Your task to perform on an android device: empty trash in google photos Image 0: 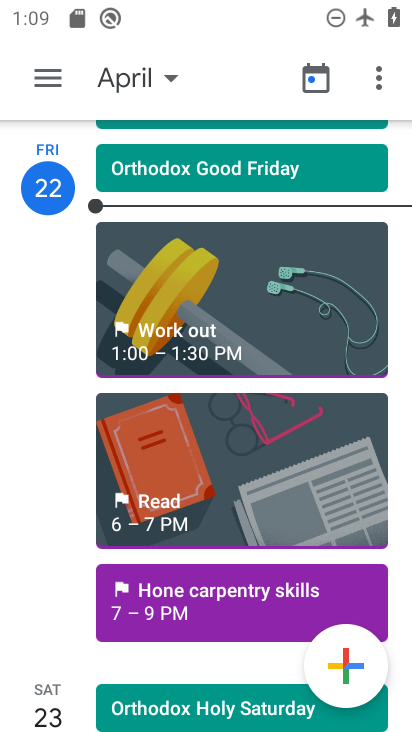
Step 0: press home button
Your task to perform on an android device: empty trash in google photos Image 1: 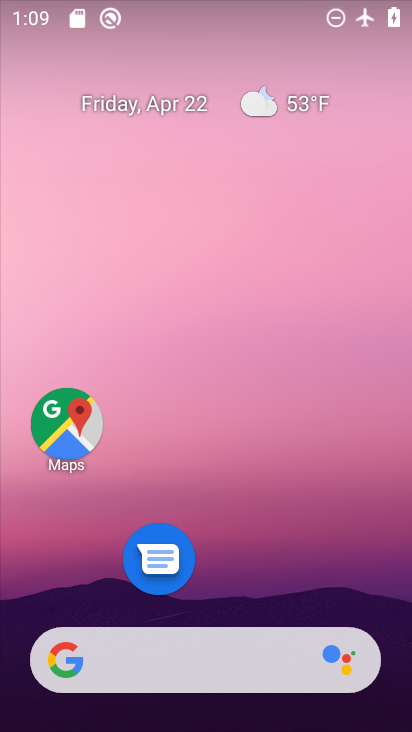
Step 1: drag from (225, 710) to (203, 88)
Your task to perform on an android device: empty trash in google photos Image 2: 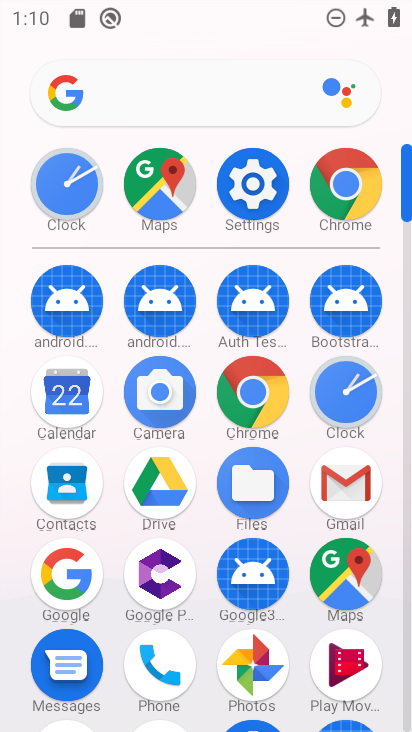
Step 2: click (252, 657)
Your task to perform on an android device: empty trash in google photos Image 3: 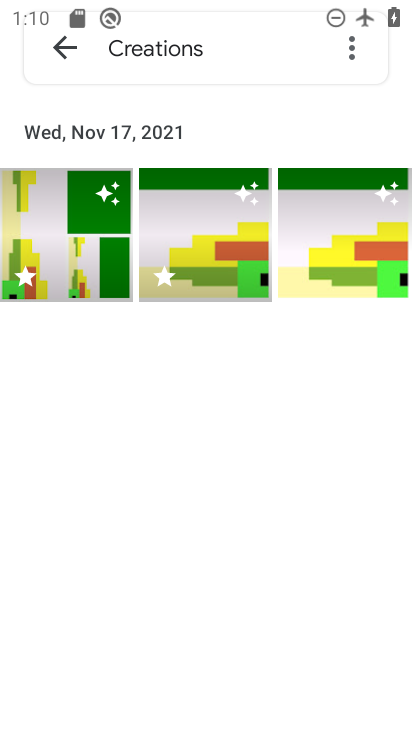
Step 3: click (60, 47)
Your task to perform on an android device: empty trash in google photos Image 4: 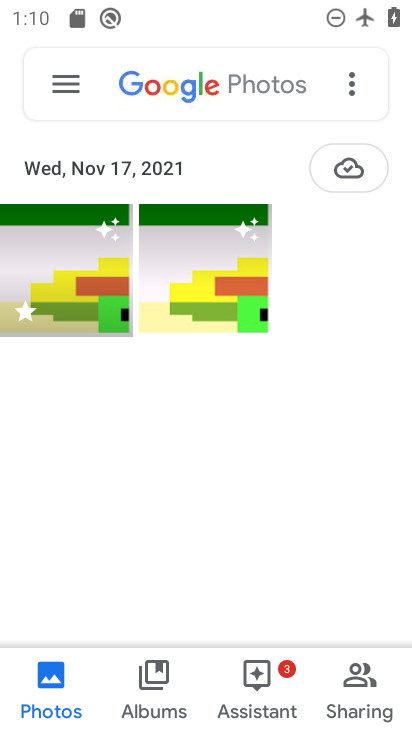
Step 4: click (59, 81)
Your task to perform on an android device: empty trash in google photos Image 5: 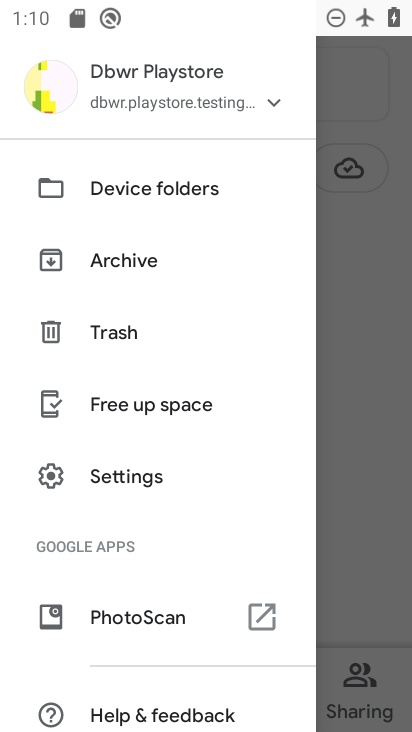
Step 5: click (96, 331)
Your task to perform on an android device: empty trash in google photos Image 6: 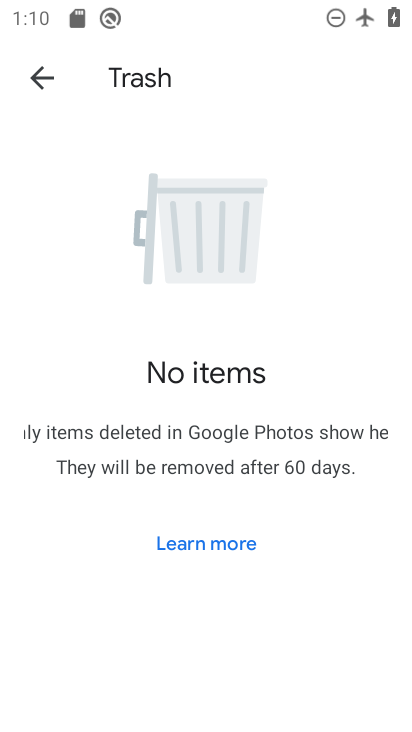
Step 6: task complete